Your task to perform on an android device: Open internet settings Image 0: 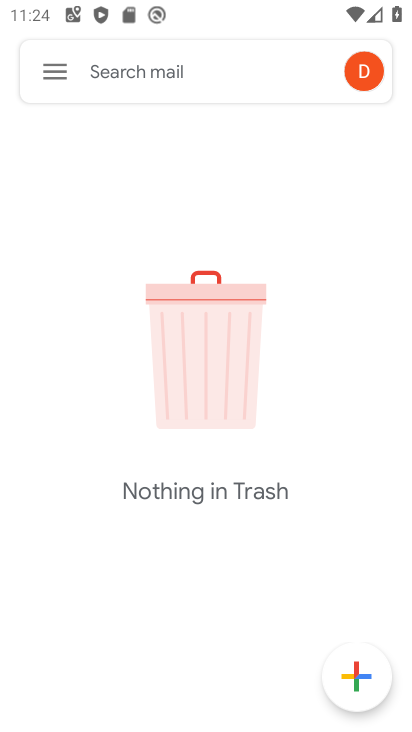
Step 0: press home button
Your task to perform on an android device: Open internet settings Image 1: 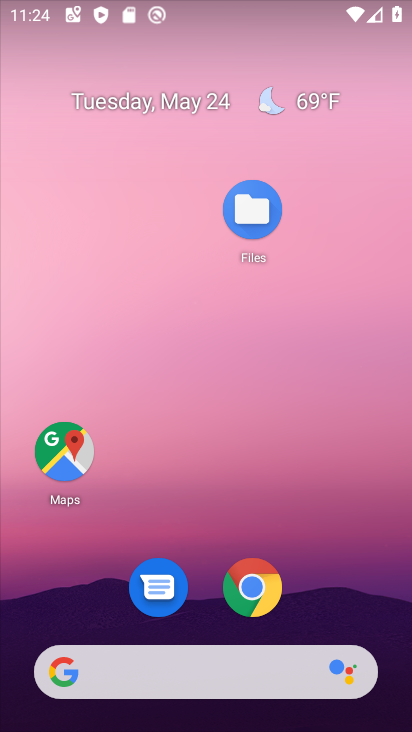
Step 1: drag from (317, 612) to (35, 182)
Your task to perform on an android device: Open internet settings Image 2: 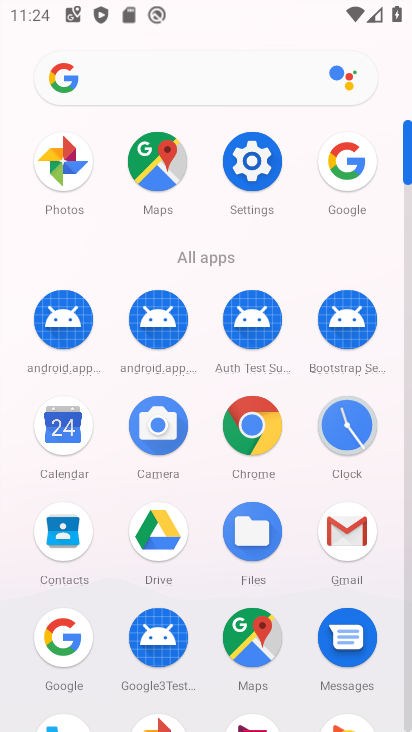
Step 2: click (271, 171)
Your task to perform on an android device: Open internet settings Image 3: 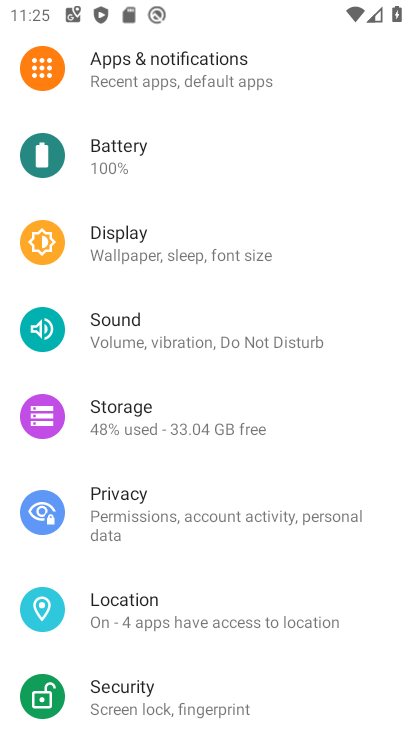
Step 3: drag from (278, 138) to (263, 396)
Your task to perform on an android device: Open internet settings Image 4: 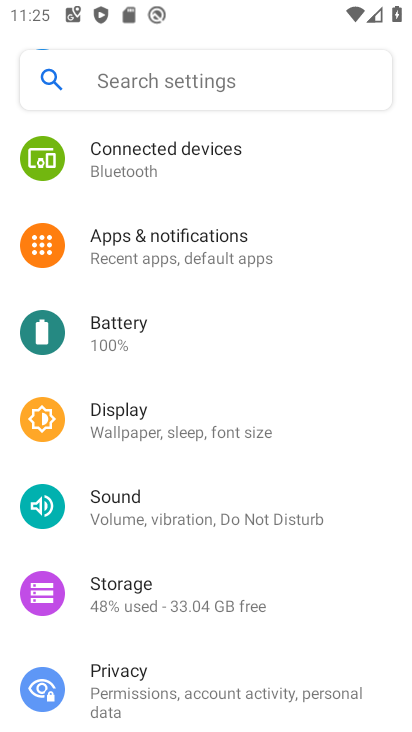
Step 4: drag from (230, 164) to (249, 454)
Your task to perform on an android device: Open internet settings Image 5: 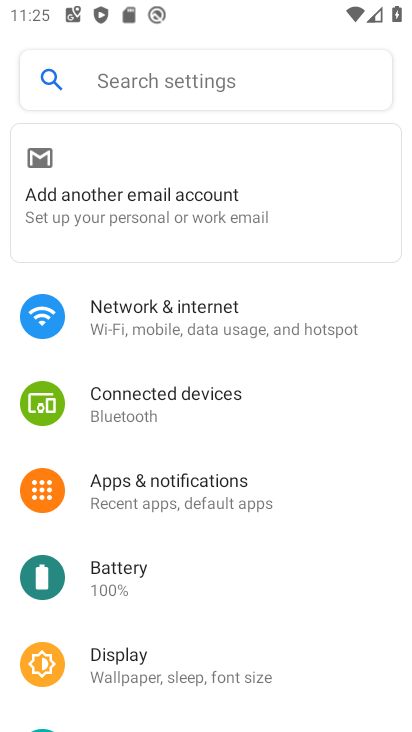
Step 5: click (228, 311)
Your task to perform on an android device: Open internet settings Image 6: 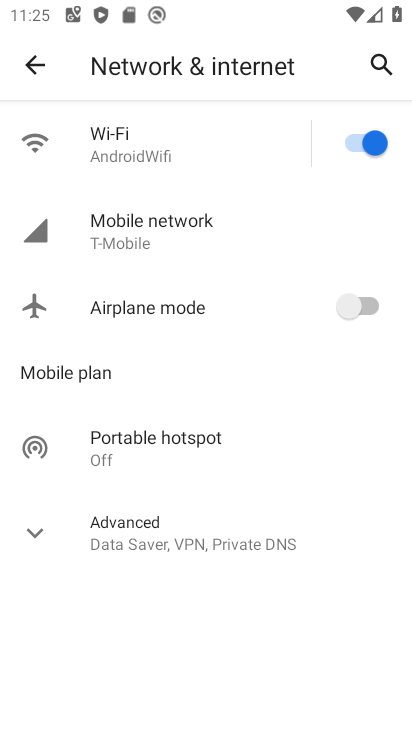
Step 6: task complete